Your task to perform on an android device: turn off translation in the chrome app Image 0: 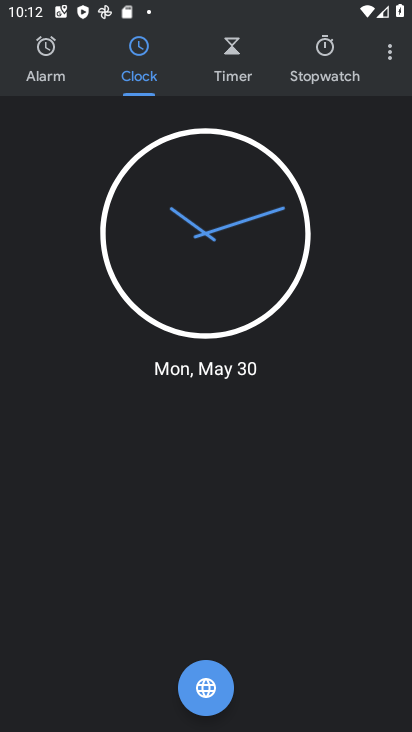
Step 0: press home button
Your task to perform on an android device: turn off translation in the chrome app Image 1: 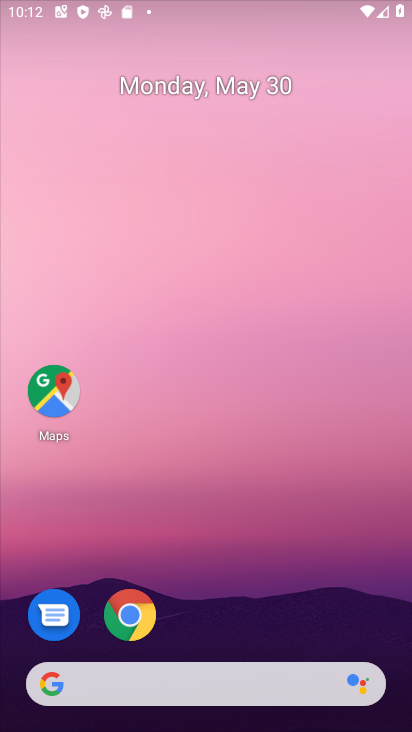
Step 1: drag from (320, 531) to (192, 31)
Your task to perform on an android device: turn off translation in the chrome app Image 2: 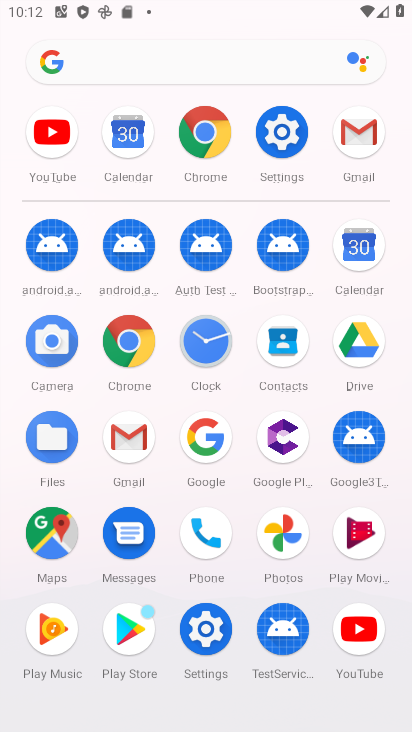
Step 2: click (142, 338)
Your task to perform on an android device: turn off translation in the chrome app Image 3: 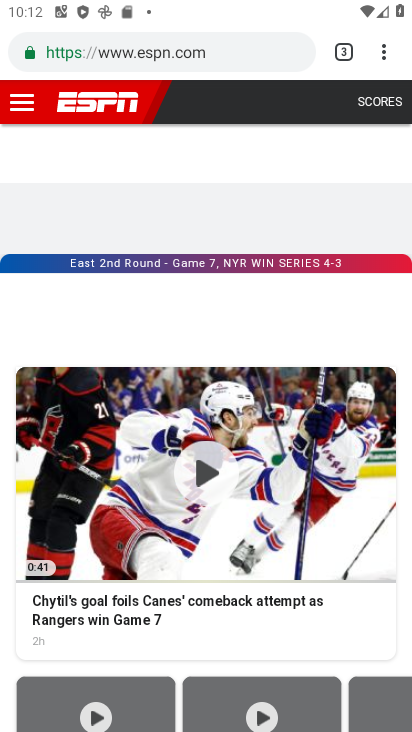
Step 3: click (375, 53)
Your task to perform on an android device: turn off translation in the chrome app Image 4: 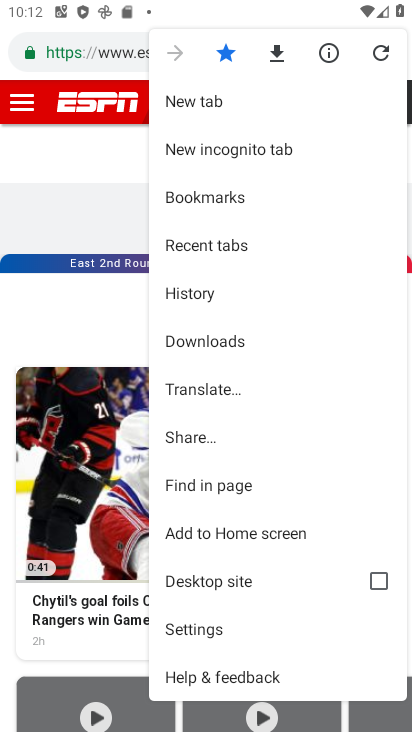
Step 4: click (195, 635)
Your task to perform on an android device: turn off translation in the chrome app Image 5: 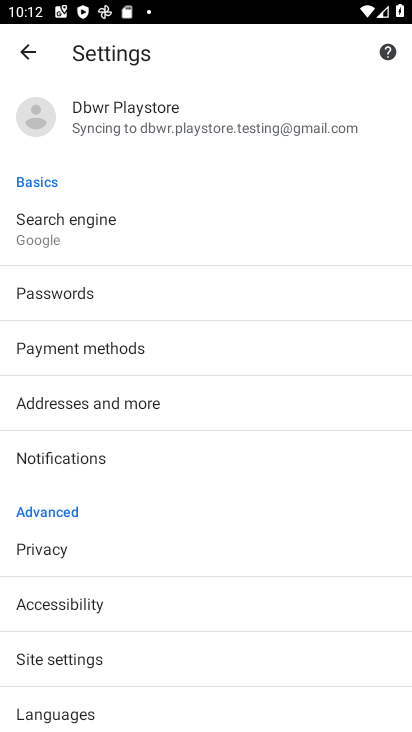
Step 5: click (66, 716)
Your task to perform on an android device: turn off translation in the chrome app Image 6: 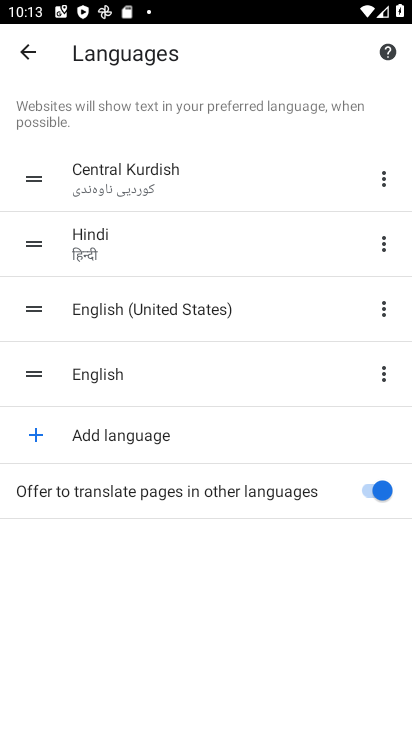
Step 6: click (378, 499)
Your task to perform on an android device: turn off translation in the chrome app Image 7: 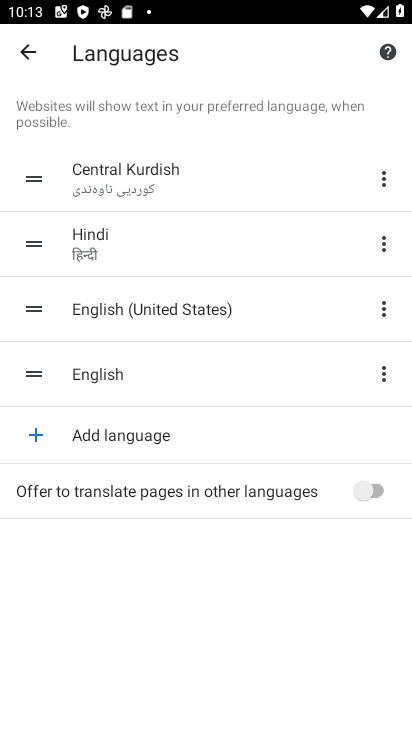
Step 7: task complete